Your task to perform on an android device: Open settings on Google Maps Image 0: 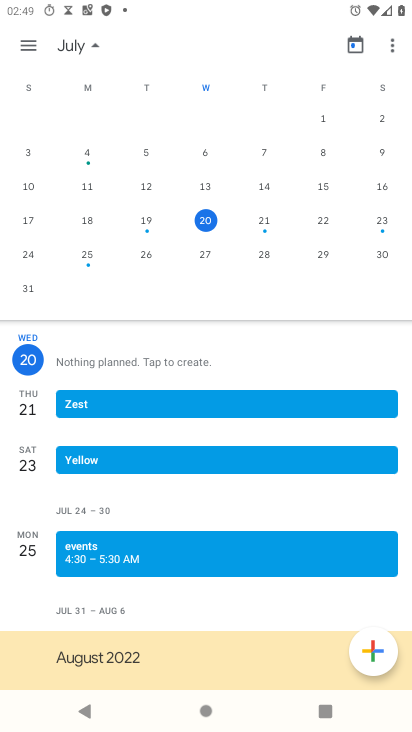
Step 0: press home button
Your task to perform on an android device: Open settings on Google Maps Image 1: 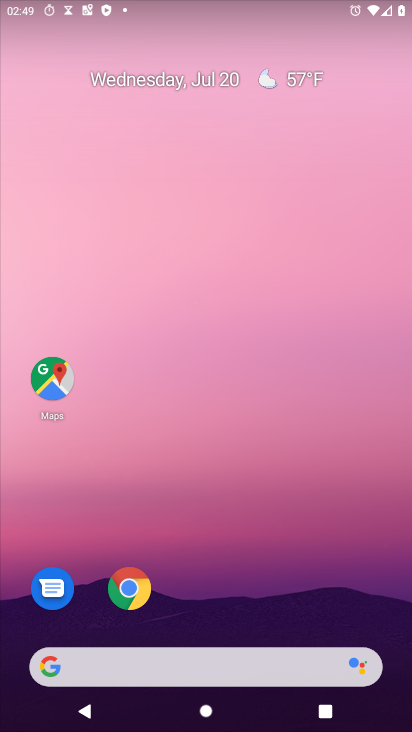
Step 1: drag from (225, 665) to (246, 44)
Your task to perform on an android device: Open settings on Google Maps Image 2: 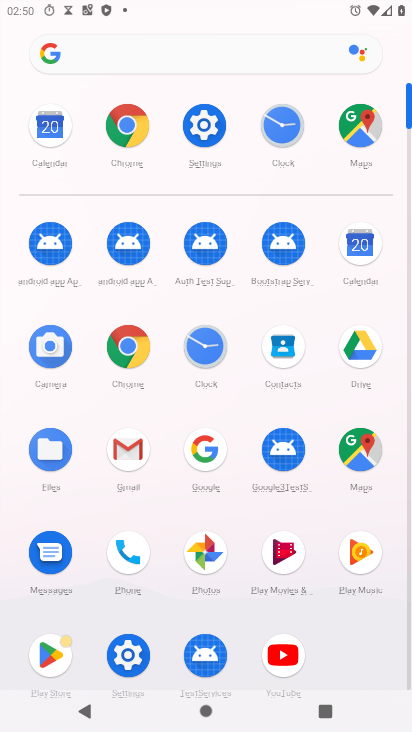
Step 2: click (374, 448)
Your task to perform on an android device: Open settings on Google Maps Image 3: 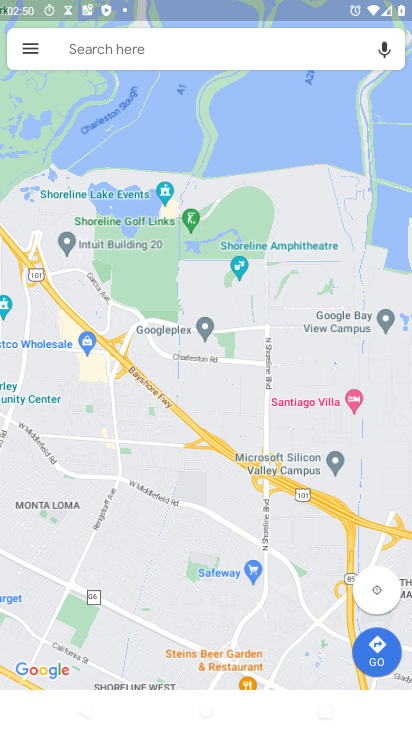
Step 3: click (34, 51)
Your task to perform on an android device: Open settings on Google Maps Image 4: 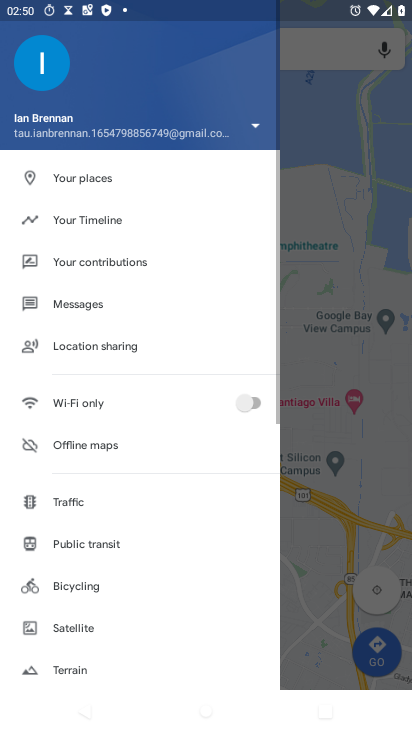
Step 4: drag from (97, 623) to (80, 56)
Your task to perform on an android device: Open settings on Google Maps Image 5: 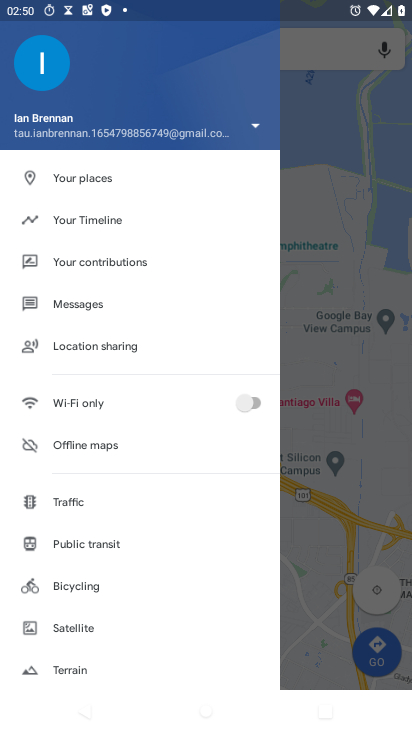
Step 5: drag from (165, 638) to (239, 202)
Your task to perform on an android device: Open settings on Google Maps Image 6: 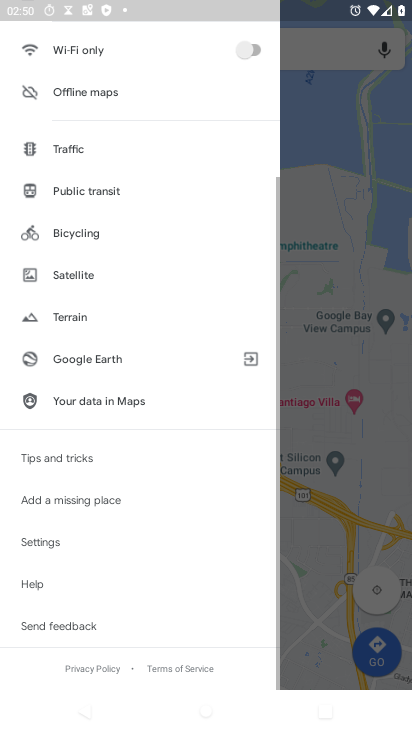
Step 6: click (79, 547)
Your task to perform on an android device: Open settings on Google Maps Image 7: 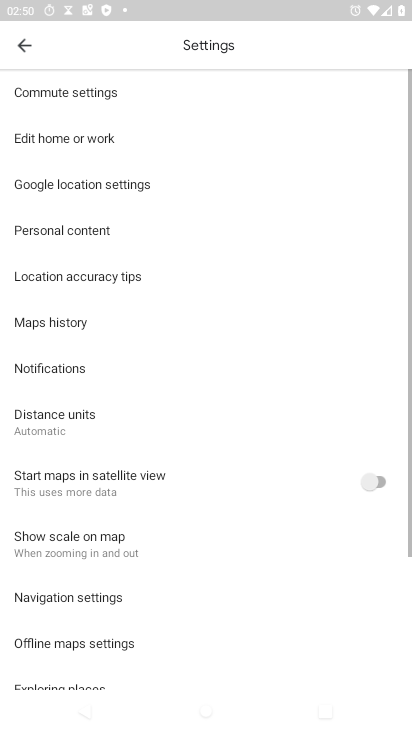
Step 7: task complete